Your task to perform on an android device: turn off picture-in-picture Image 0: 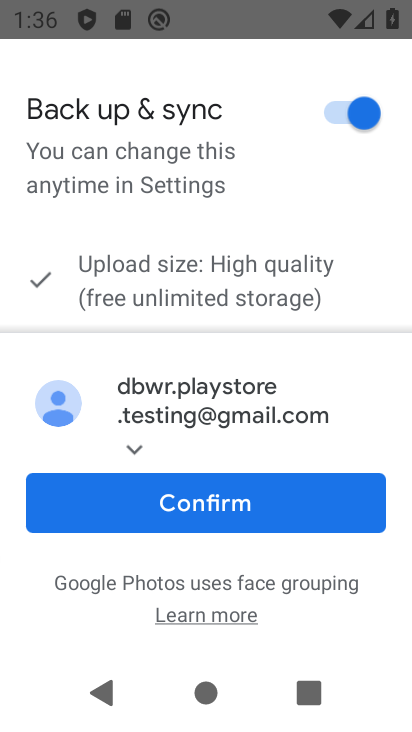
Step 0: press home button
Your task to perform on an android device: turn off picture-in-picture Image 1: 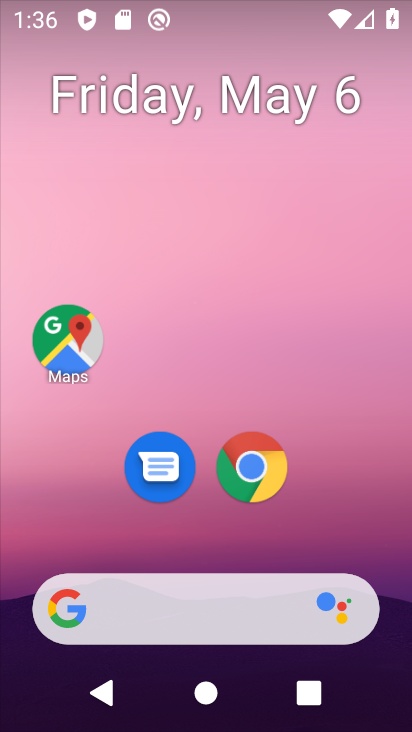
Step 1: click (269, 467)
Your task to perform on an android device: turn off picture-in-picture Image 2: 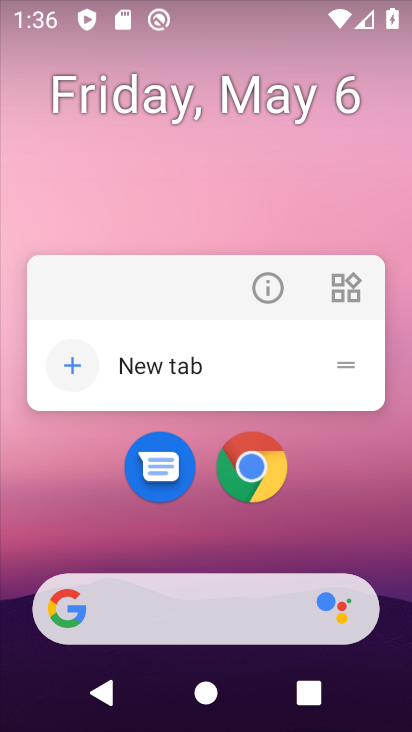
Step 2: click (273, 294)
Your task to perform on an android device: turn off picture-in-picture Image 3: 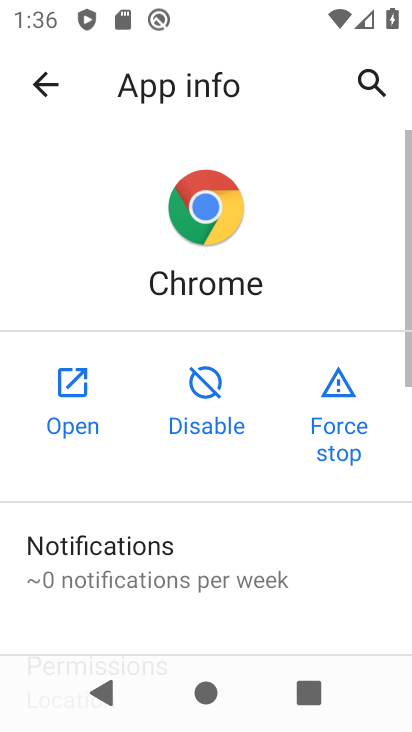
Step 3: drag from (280, 562) to (278, 136)
Your task to perform on an android device: turn off picture-in-picture Image 4: 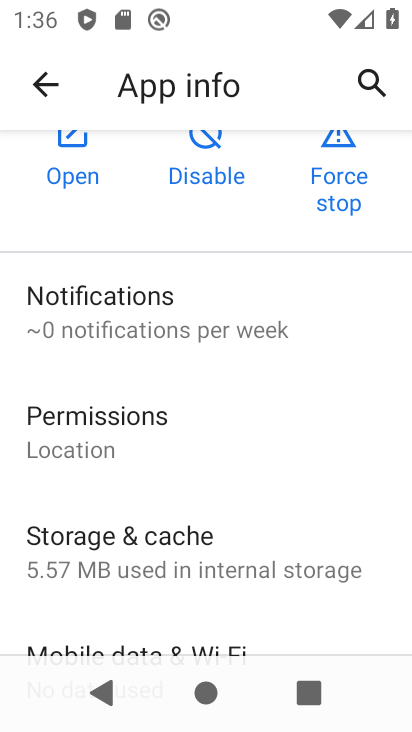
Step 4: drag from (262, 449) to (255, 120)
Your task to perform on an android device: turn off picture-in-picture Image 5: 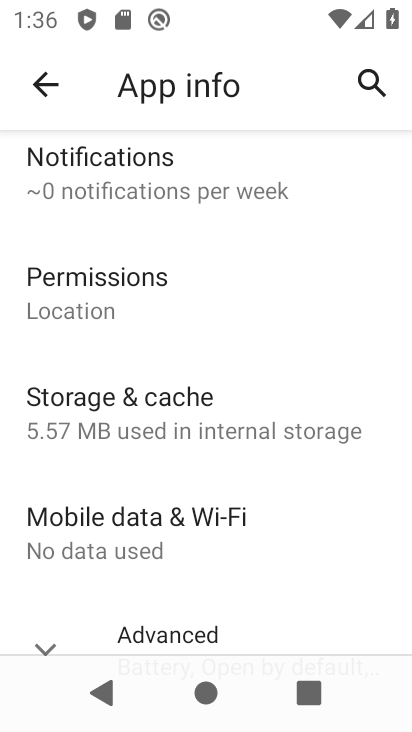
Step 5: click (193, 635)
Your task to perform on an android device: turn off picture-in-picture Image 6: 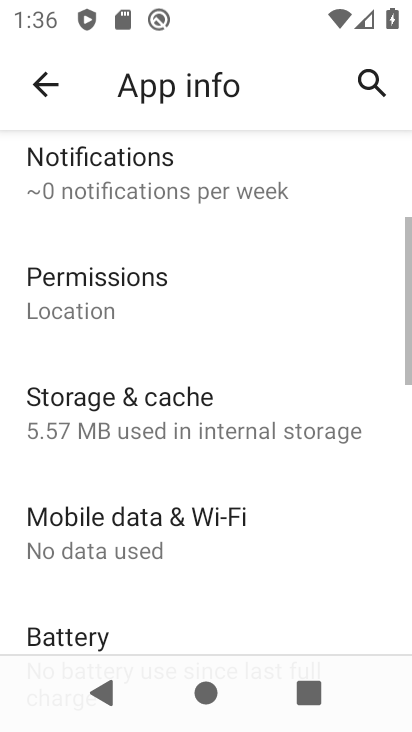
Step 6: drag from (303, 583) to (273, 80)
Your task to perform on an android device: turn off picture-in-picture Image 7: 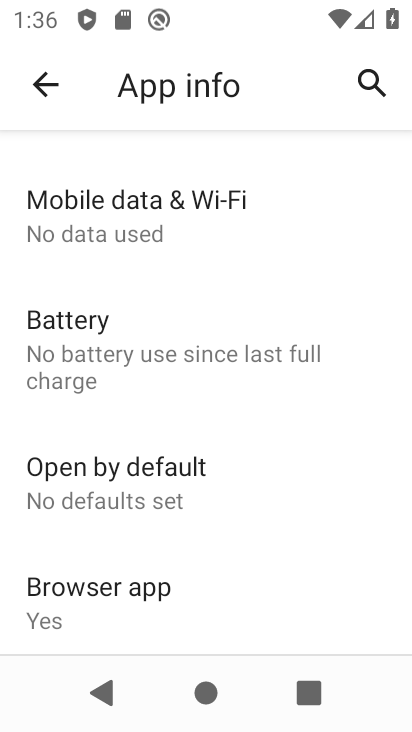
Step 7: drag from (264, 578) to (257, 193)
Your task to perform on an android device: turn off picture-in-picture Image 8: 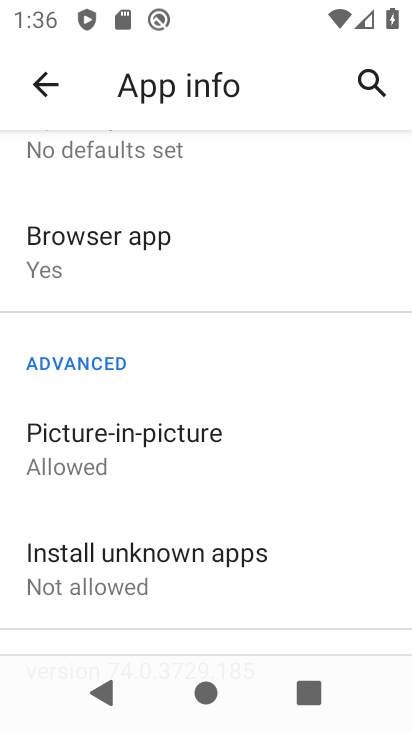
Step 8: drag from (305, 598) to (276, 195)
Your task to perform on an android device: turn off picture-in-picture Image 9: 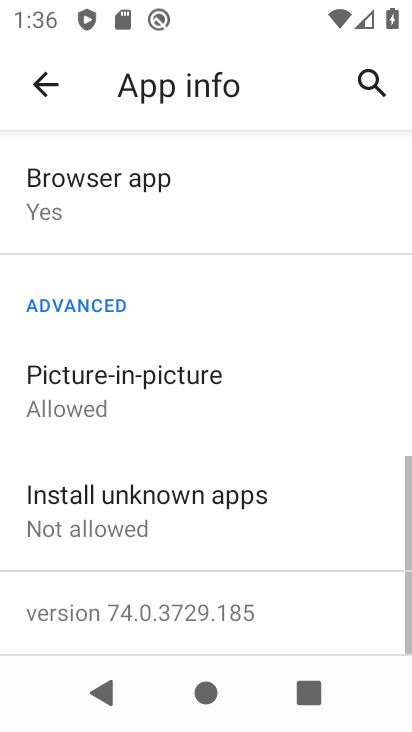
Step 9: click (240, 363)
Your task to perform on an android device: turn off picture-in-picture Image 10: 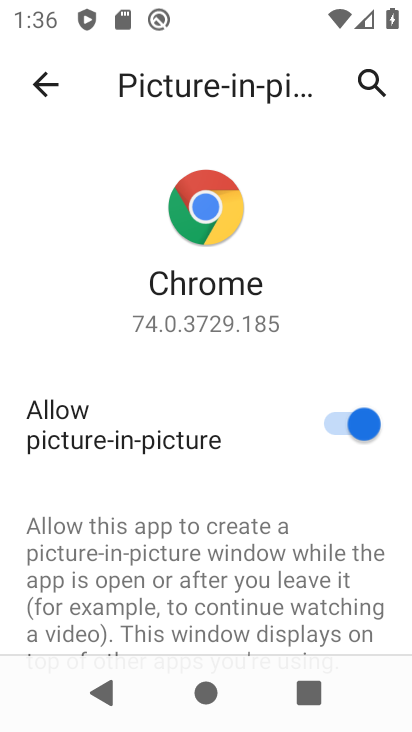
Step 10: click (351, 413)
Your task to perform on an android device: turn off picture-in-picture Image 11: 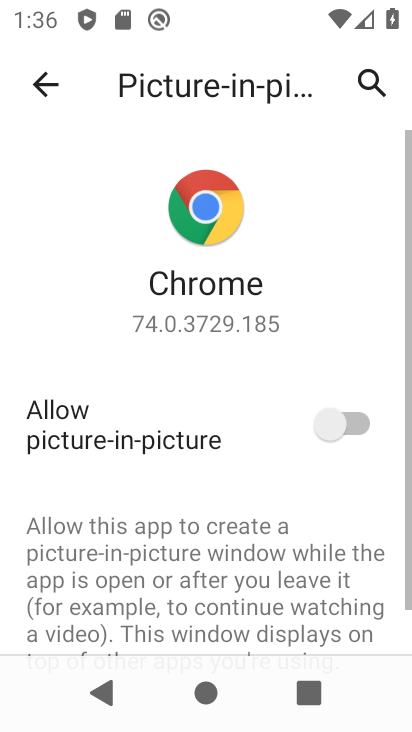
Step 11: task complete